Your task to perform on an android device: Open location settings Image 0: 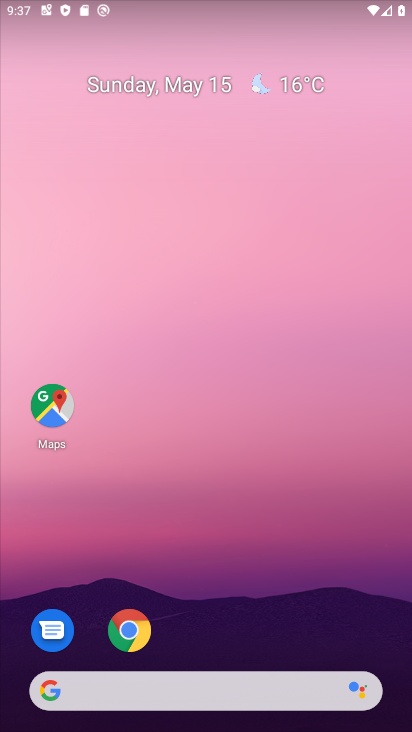
Step 0: drag from (238, 645) to (228, 246)
Your task to perform on an android device: Open location settings Image 1: 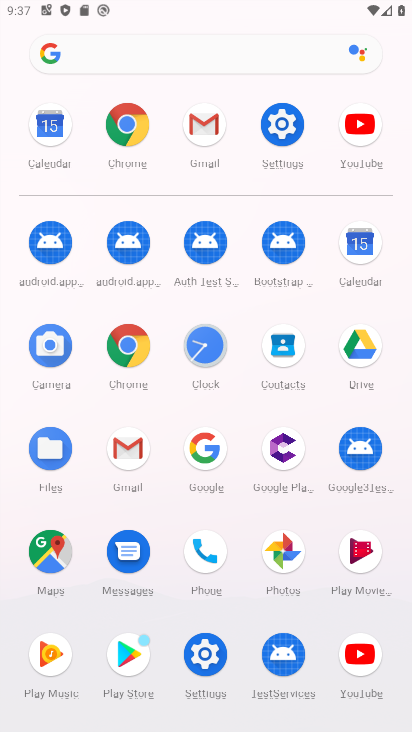
Step 1: click (270, 115)
Your task to perform on an android device: Open location settings Image 2: 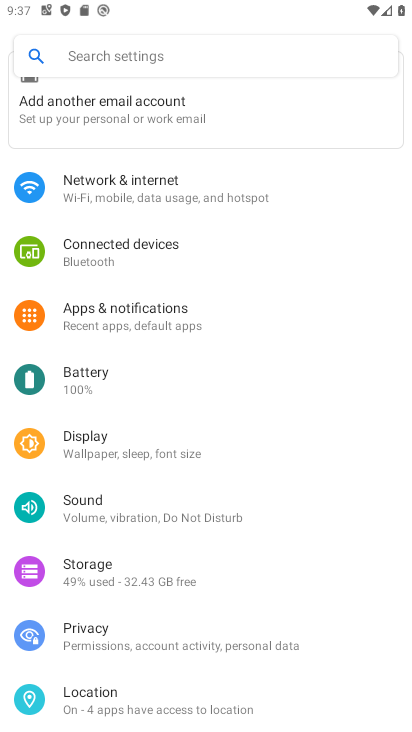
Step 2: click (150, 690)
Your task to perform on an android device: Open location settings Image 3: 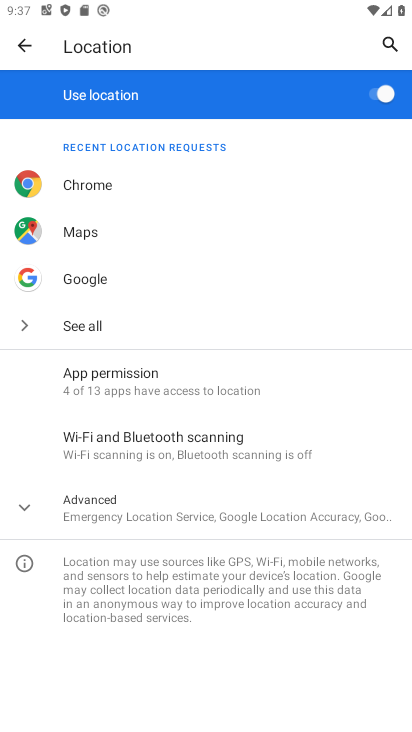
Step 3: click (112, 505)
Your task to perform on an android device: Open location settings Image 4: 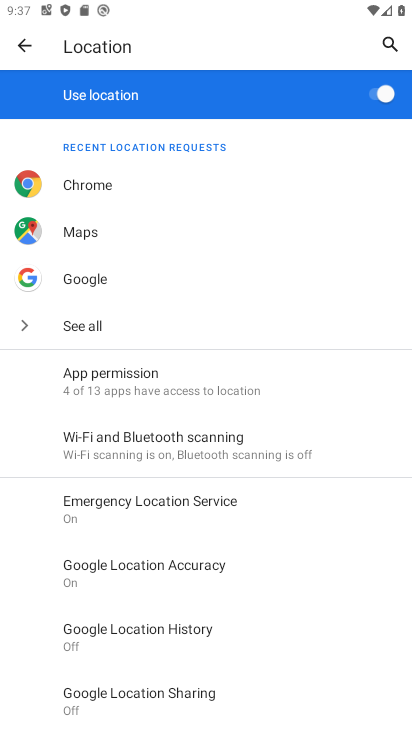
Step 4: task complete